Your task to perform on an android device: toggle priority inbox in the gmail app Image 0: 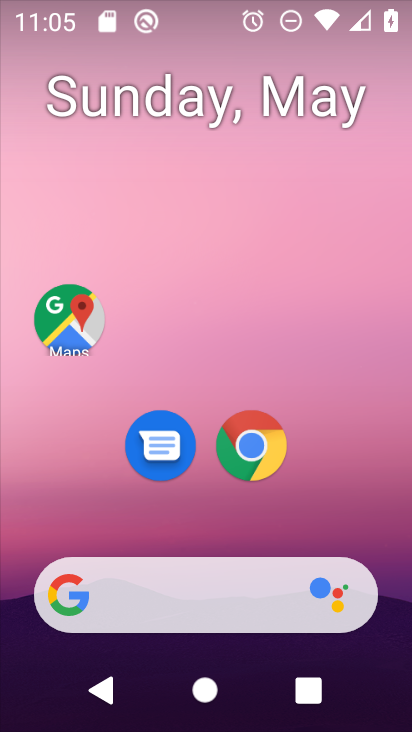
Step 0: drag from (232, 665) to (339, 93)
Your task to perform on an android device: toggle priority inbox in the gmail app Image 1: 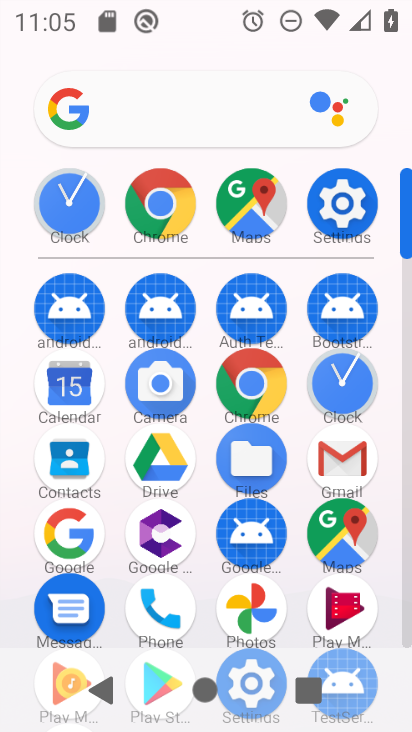
Step 1: drag from (259, 454) to (285, 192)
Your task to perform on an android device: toggle priority inbox in the gmail app Image 2: 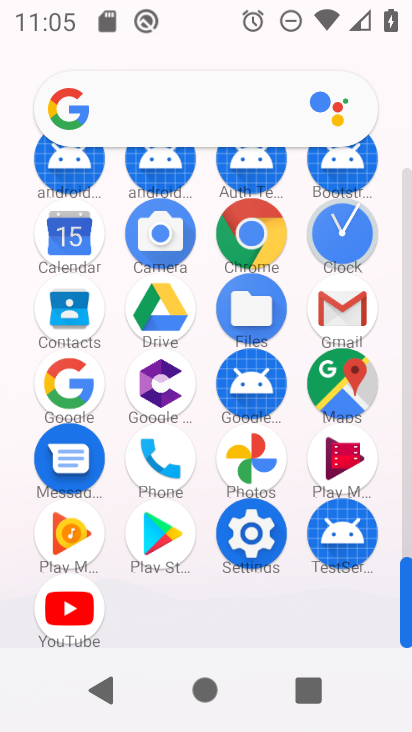
Step 2: click (358, 321)
Your task to perform on an android device: toggle priority inbox in the gmail app Image 3: 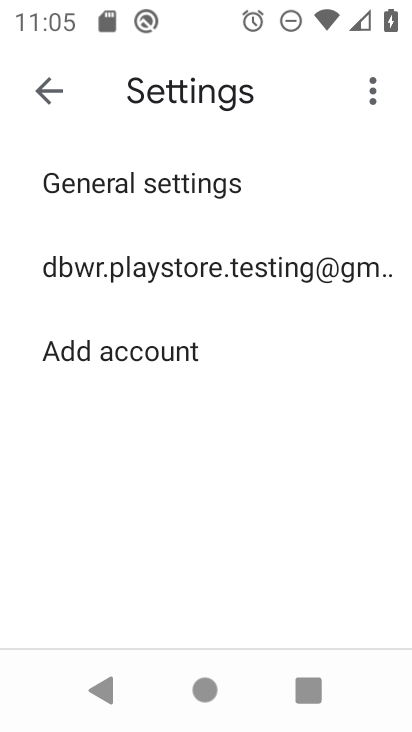
Step 3: press home button
Your task to perform on an android device: toggle priority inbox in the gmail app Image 4: 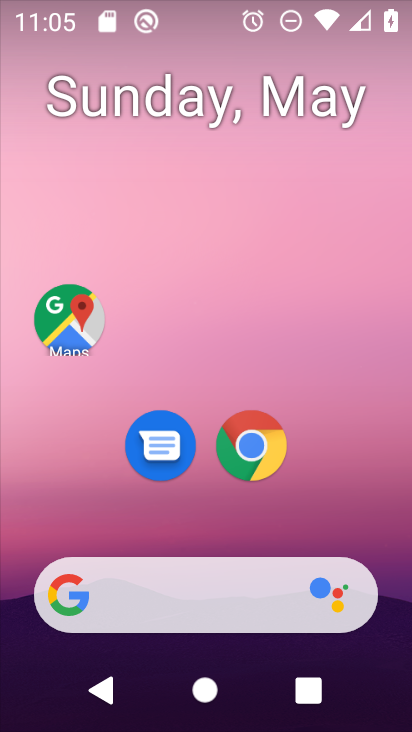
Step 4: drag from (230, 503) to (257, 90)
Your task to perform on an android device: toggle priority inbox in the gmail app Image 5: 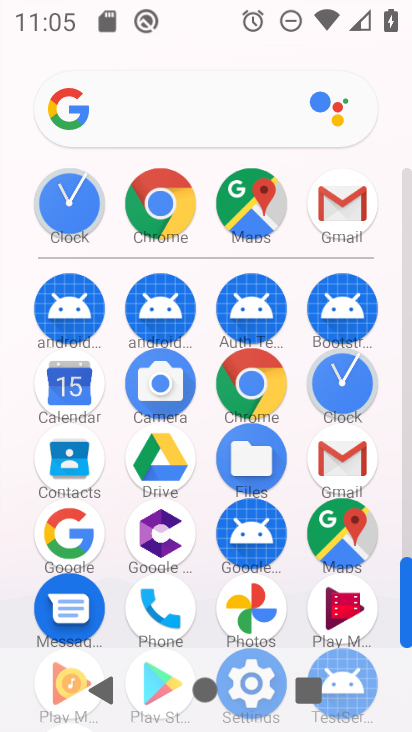
Step 5: click (364, 459)
Your task to perform on an android device: toggle priority inbox in the gmail app Image 6: 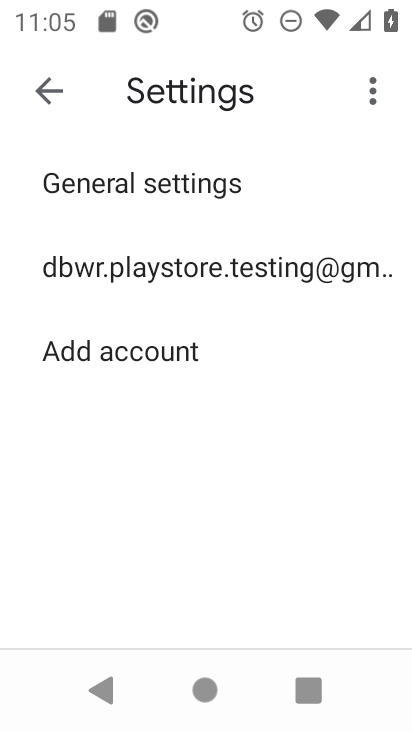
Step 6: click (125, 266)
Your task to perform on an android device: toggle priority inbox in the gmail app Image 7: 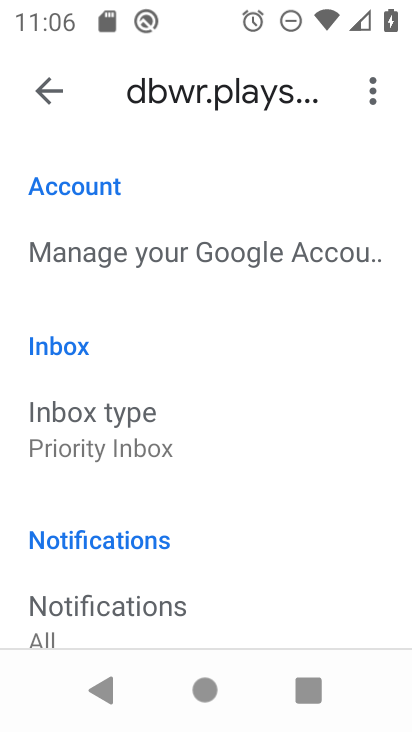
Step 7: click (120, 440)
Your task to perform on an android device: toggle priority inbox in the gmail app Image 8: 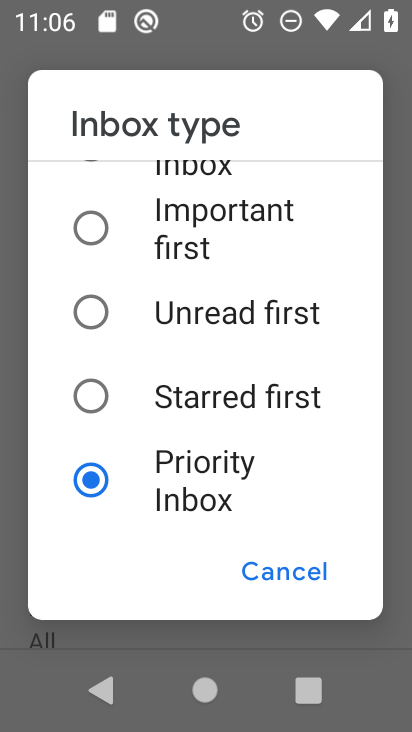
Step 8: task complete